Your task to perform on an android device: visit the assistant section in the google photos Image 0: 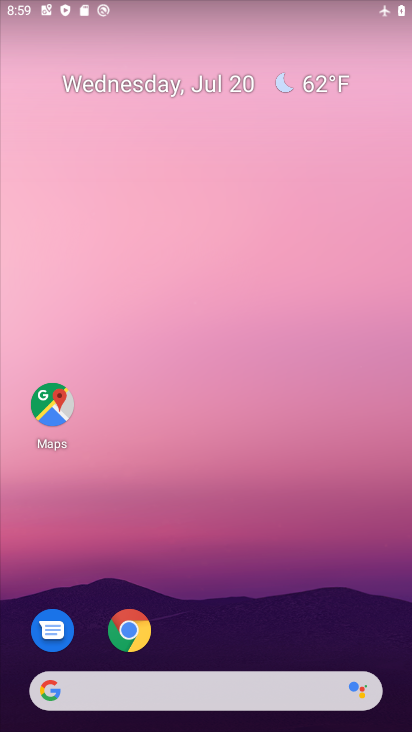
Step 0: drag from (183, 684) to (208, 50)
Your task to perform on an android device: visit the assistant section in the google photos Image 1: 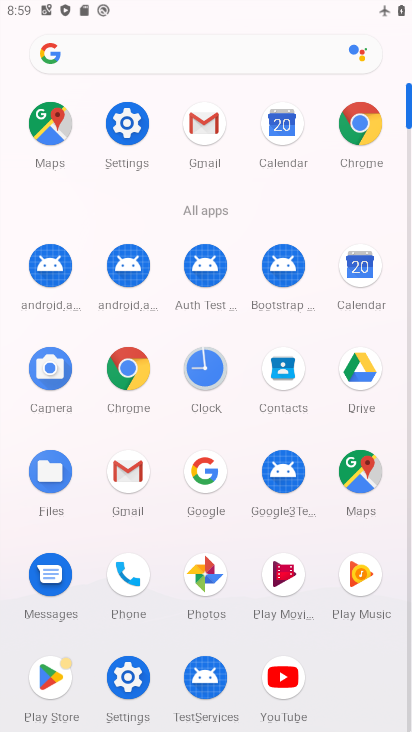
Step 1: click (213, 578)
Your task to perform on an android device: visit the assistant section in the google photos Image 2: 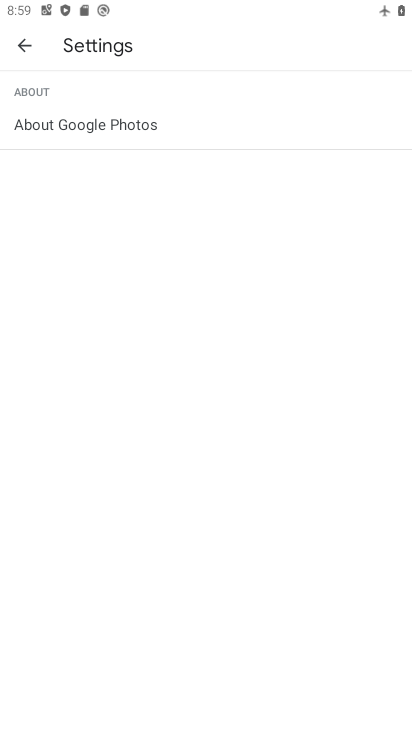
Step 2: click (28, 44)
Your task to perform on an android device: visit the assistant section in the google photos Image 3: 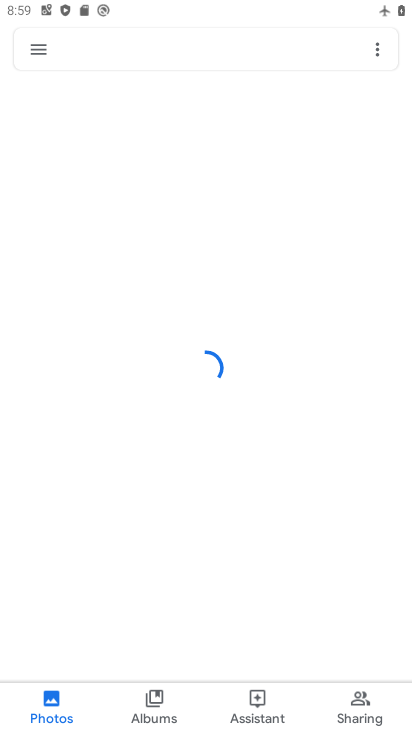
Step 3: click (258, 696)
Your task to perform on an android device: visit the assistant section in the google photos Image 4: 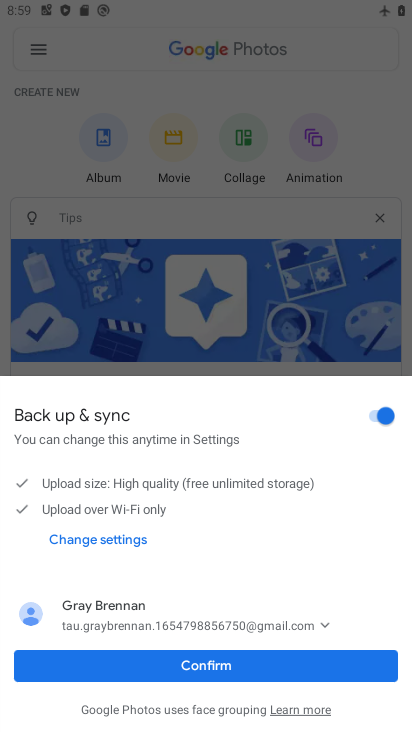
Step 4: task complete